Your task to perform on an android device: turn on showing notifications on the lock screen Image 0: 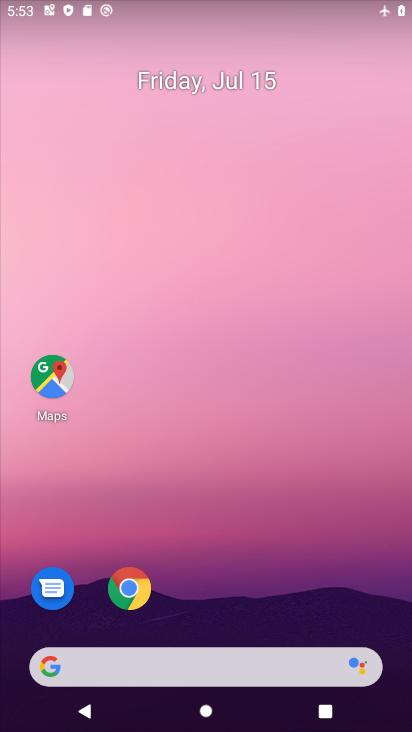
Step 0: drag from (246, 672) to (203, 7)
Your task to perform on an android device: turn on showing notifications on the lock screen Image 1: 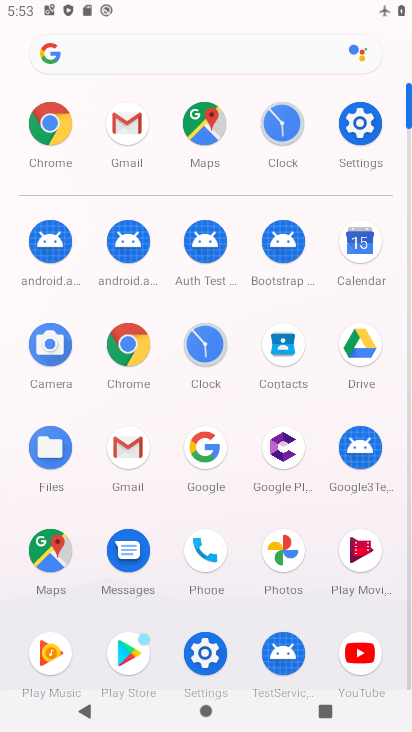
Step 1: click (365, 116)
Your task to perform on an android device: turn on showing notifications on the lock screen Image 2: 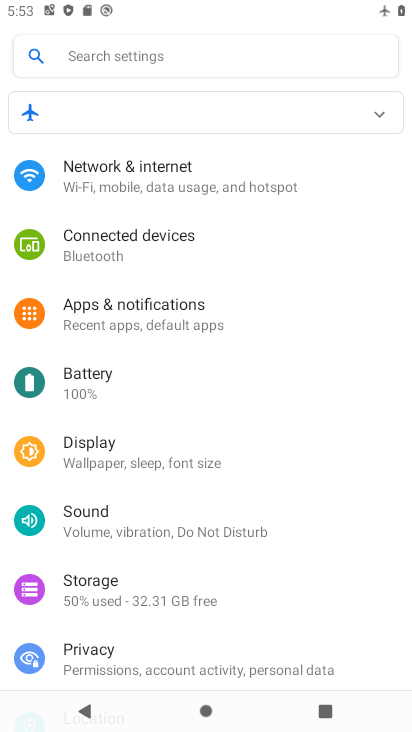
Step 2: click (200, 320)
Your task to perform on an android device: turn on showing notifications on the lock screen Image 3: 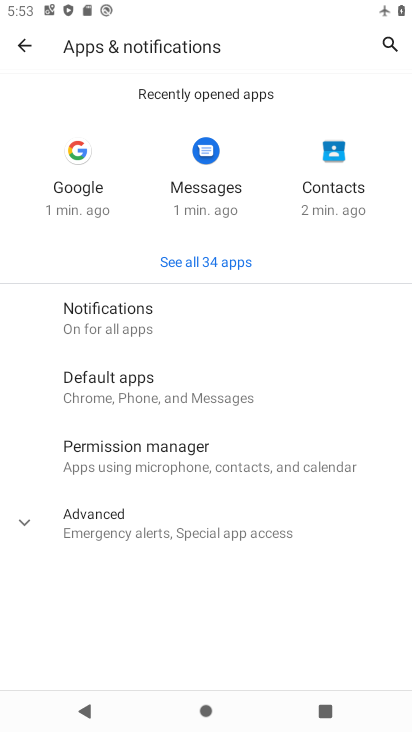
Step 3: click (145, 315)
Your task to perform on an android device: turn on showing notifications on the lock screen Image 4: 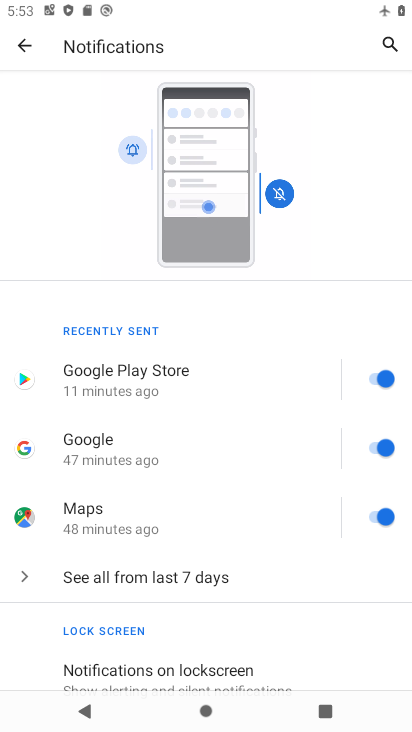
Step 4: drag from (197, 674) to (303, 251)
Your task to perform on an android device: turn on showing notifications on the lock screen Image 5: 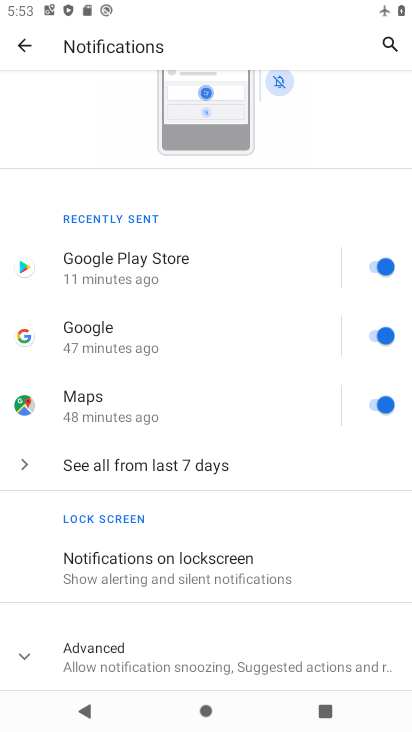
Step 5: click (193, 562)
Your task to perform on an android device: turn on showing notifications on the lock screen Image 6: 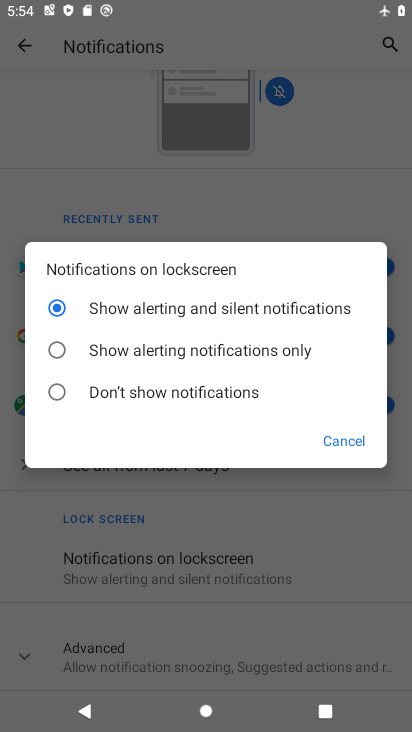
Step 6: task complete